Your task to perform on an android device: uninstall "Messages" Image 0: 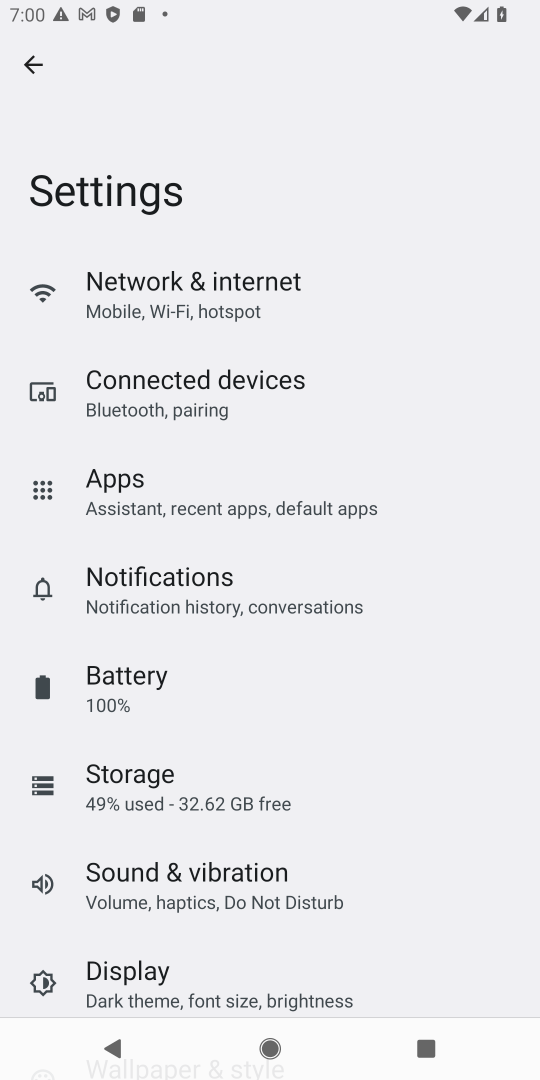
Step 0: press home button
Your task to perform on an android device: uninstall "Messages" Image 1: 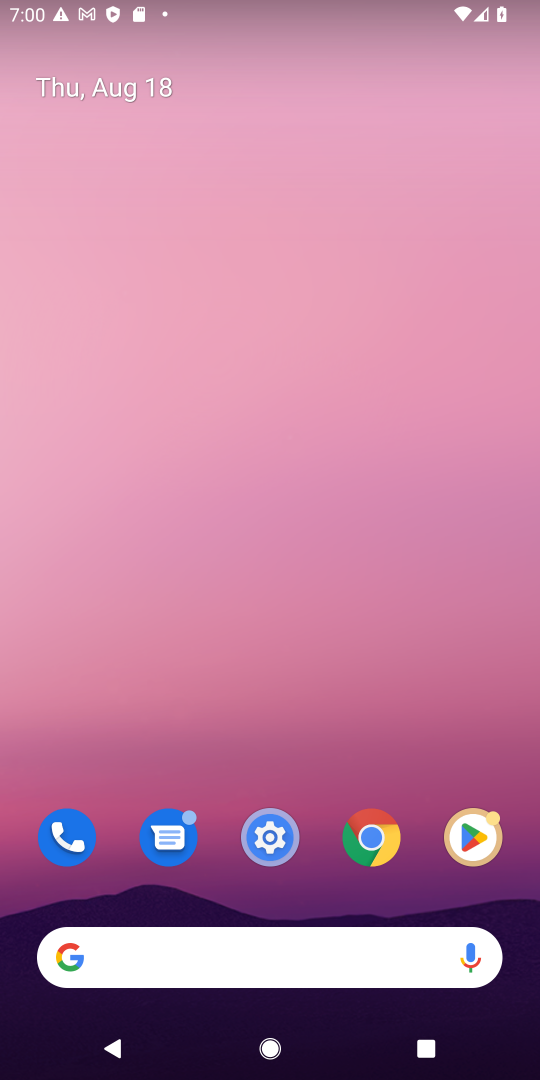
Step 1: drag from (256, 804) to (390, 20)
Your task to perform on an android device: uninstall "Messages" Image 2: 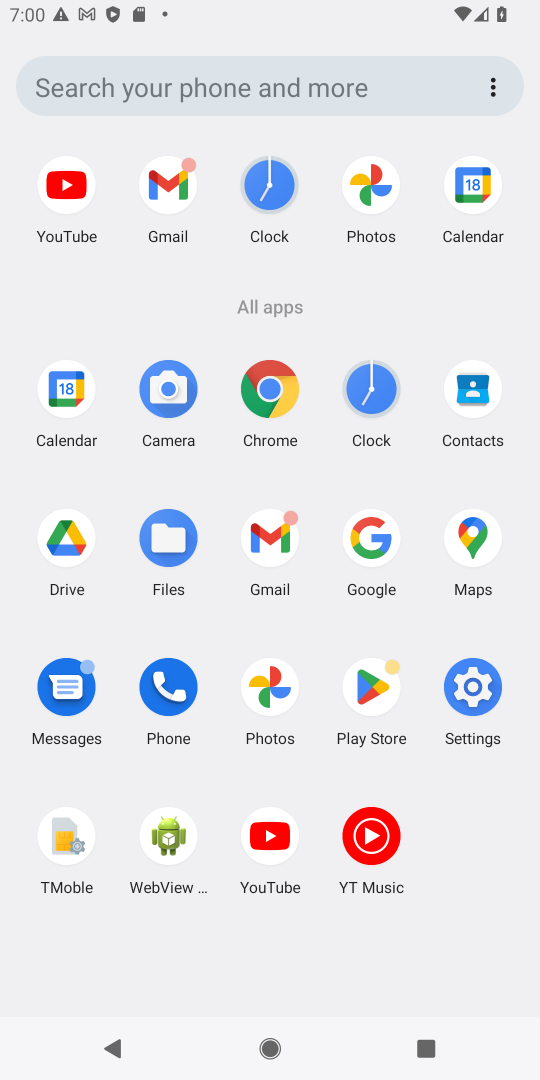
Step 2: click (380, 682)
Your task to perform on an android device: uninstall "Messages" Image 3: 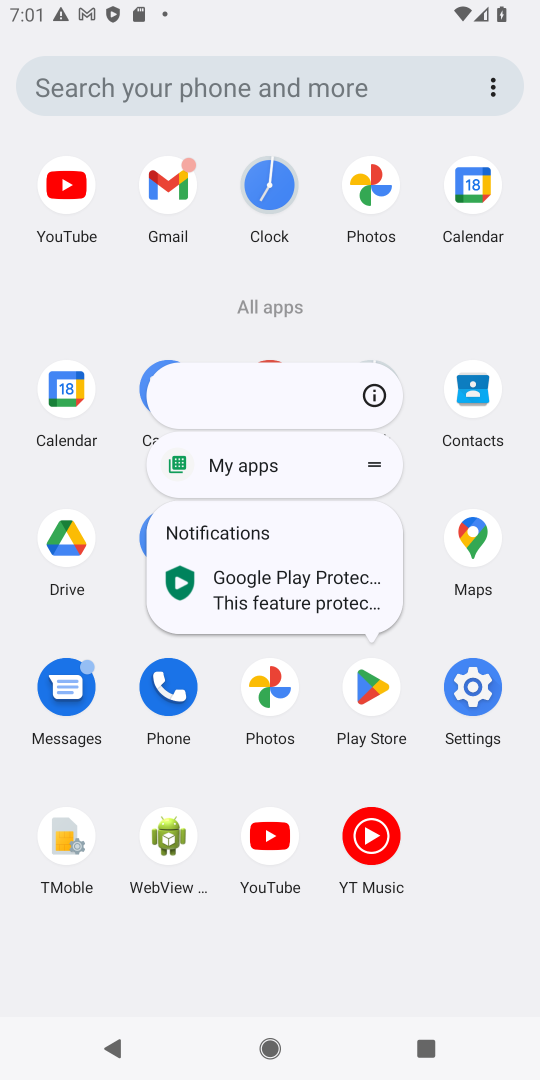
Step 3: click (380, 689)
Your task to perform on an android device: uninstall "Messages" Image 4: 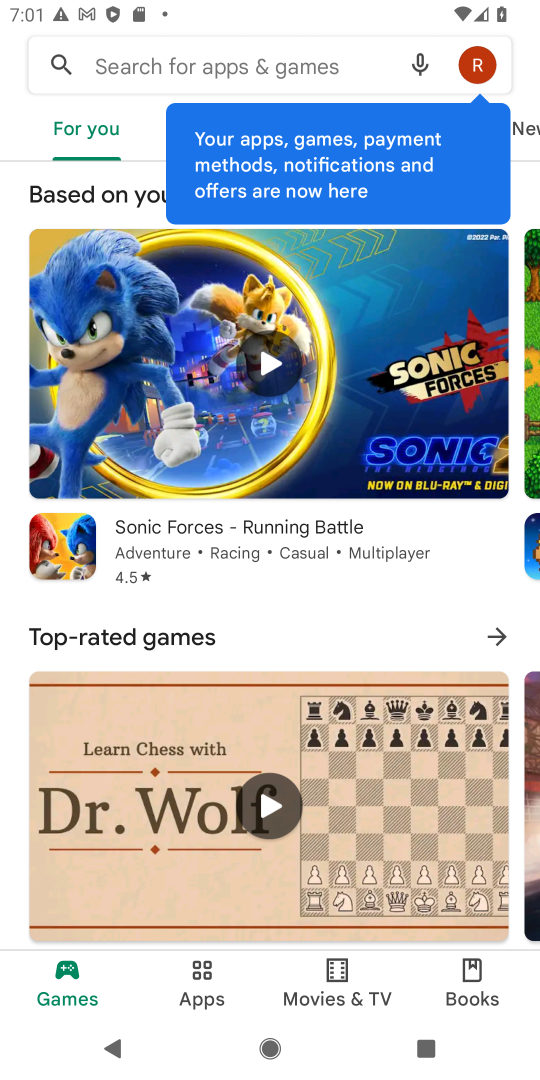
Step 4: click (199, 52)
Your task to perform on an android device: uninstall "Messages" Image 5: 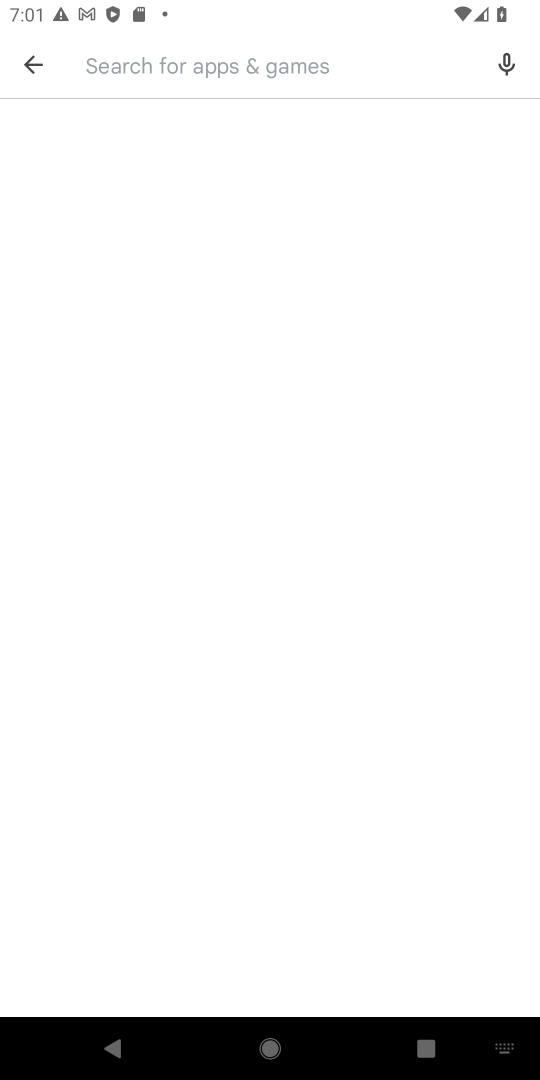
Step 5: type "messages"
Your task to perform on an android device: uninstall "Messages" Image 6: 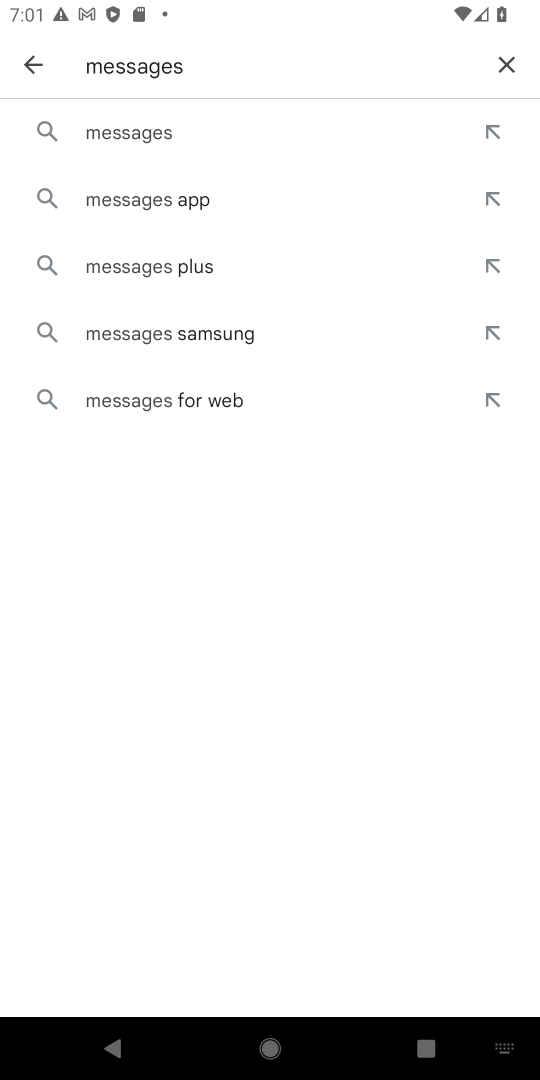
Step 6: click (115, 134)
Your task to perform on an android device: uninstall "Messages" Image 7: 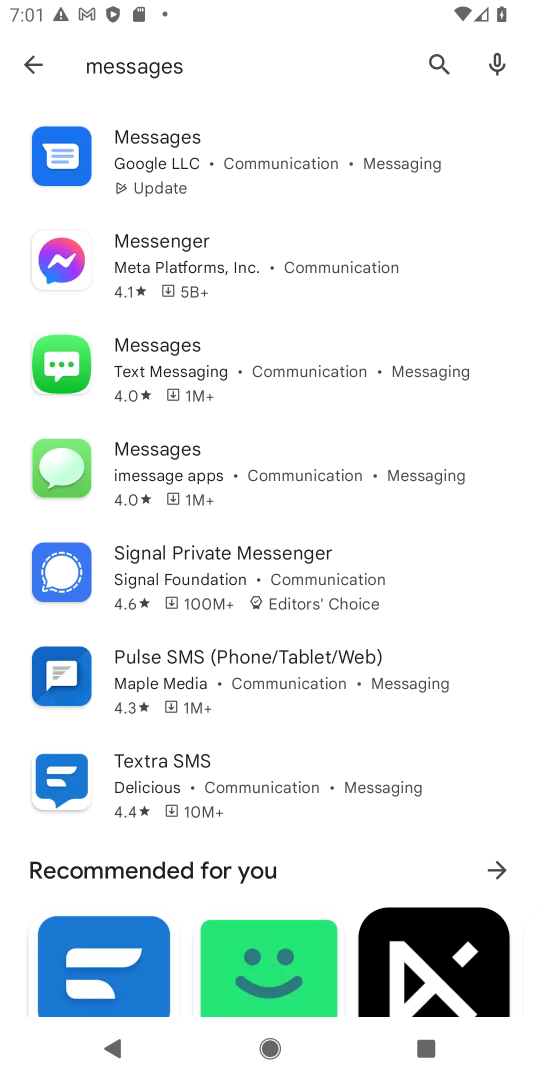
Step 7: click (145, 150)
Your task to perform on an android device: uninstall "Messages" Image 8: 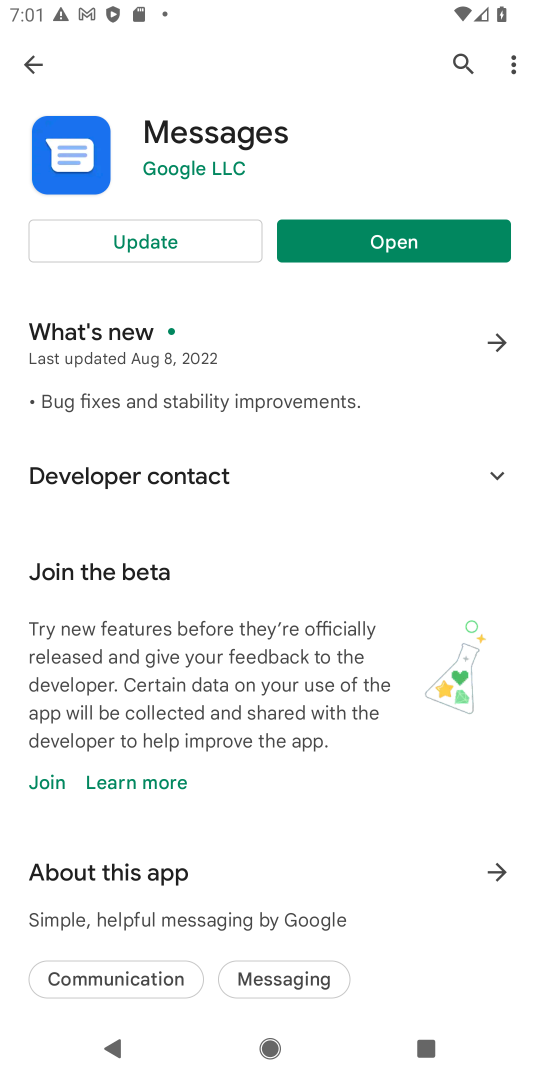
Step 8: task complete